Your task to perform on an android device: What's on my calendar today? Image 0: 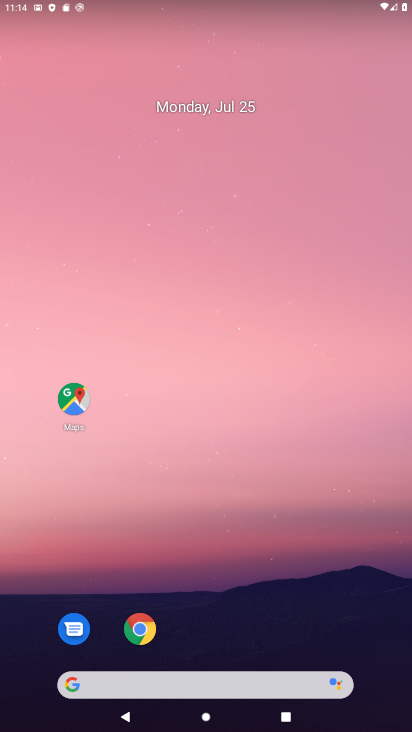
Step 0: drag from (249, 278) to (268, 113)
Your task to perform on an android device: What's on my calendar today? Image 1: 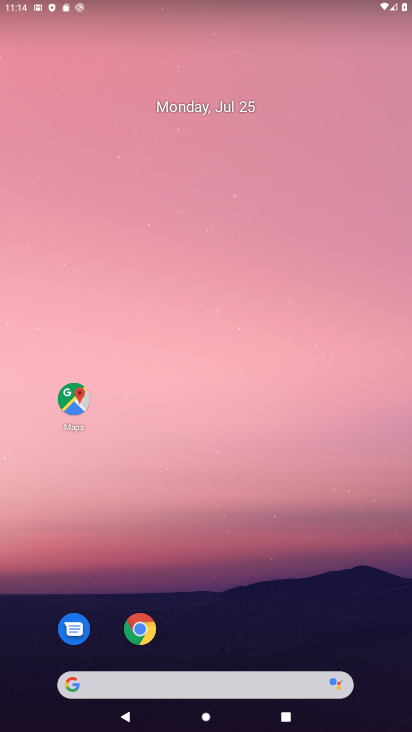
Step 1: drag from (223, 594) to (292, 177)
Your task to perform on an android device: What's on my calendar today? Image 2: 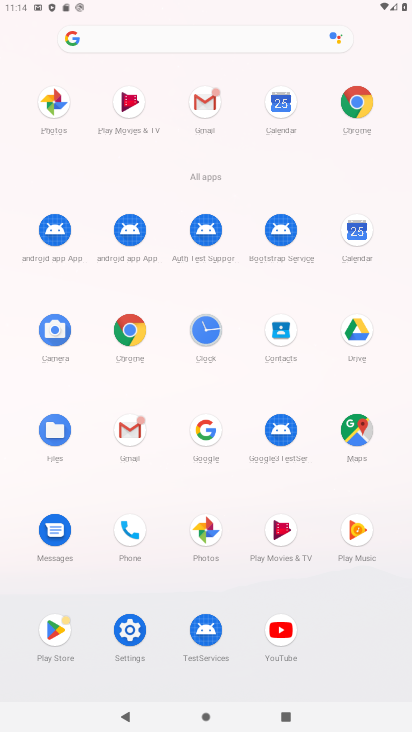
Step 2: click (359, 229)
Your task to perform on an android device: What's on my calendar today? Image 3: 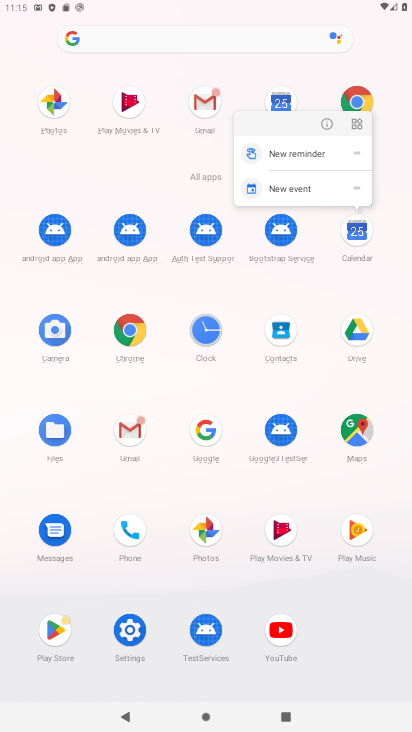
Step 3: click (319, 125)
Your task to perform on an android device: What's on my calendar today? Image 4: 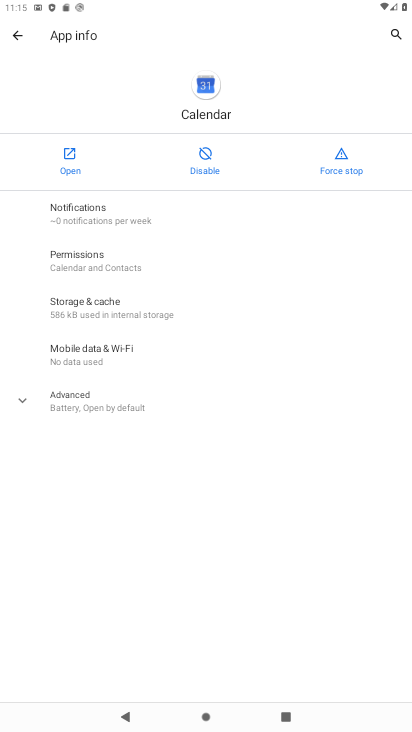
Step 4: click (74, 158)
Your task to perform on an android device: What's on my calendar today? Image 5: 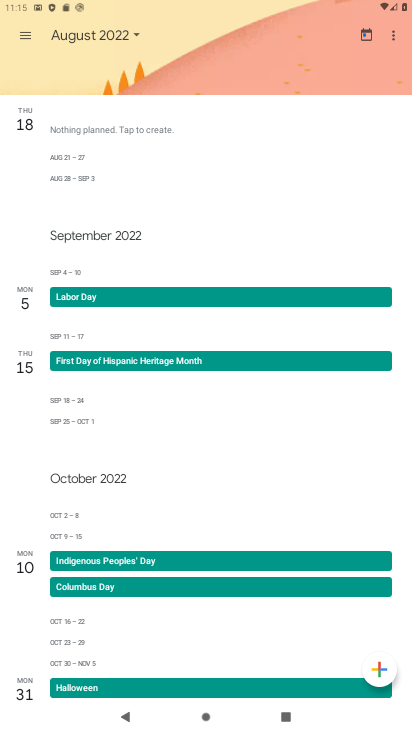
Step 5: click (366, 28)
Your task to perform on an android device: What's on my calendar today? Image 6: 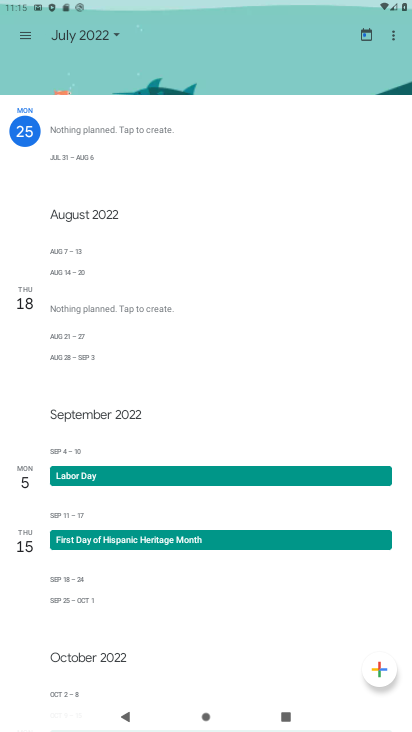
Step 6: task complete